Your task to perform on an android device: What's the weather going to be this weekend? Image 0: 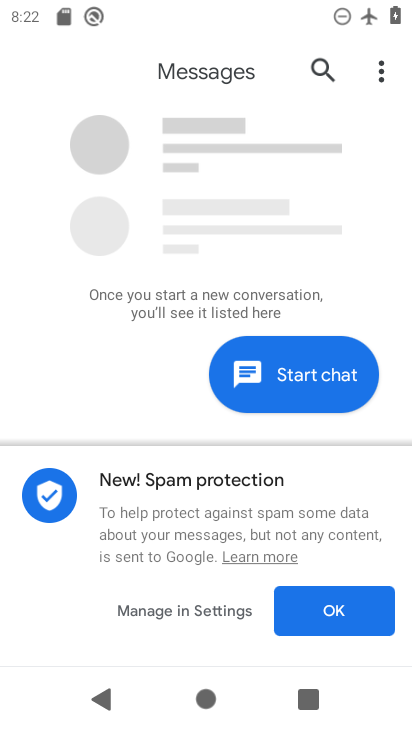
Step 0: press home button
Your task to perform on an android device: What's the weather going to be this weekend? Image 1: 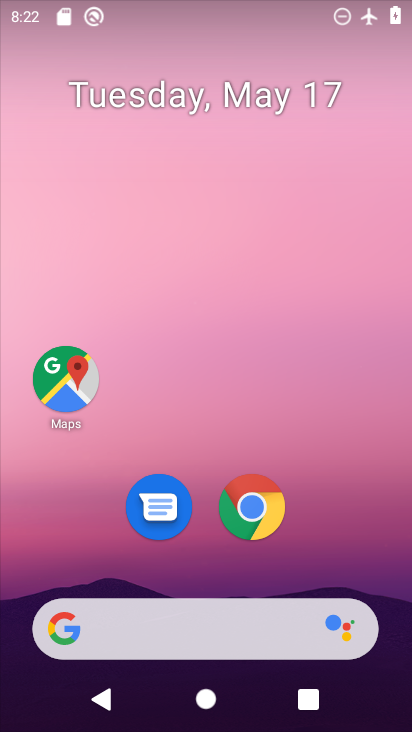
Step 1: click (127, 635)
Your task to perform on an android device: What's the weather going to be this weekend? Image 2: 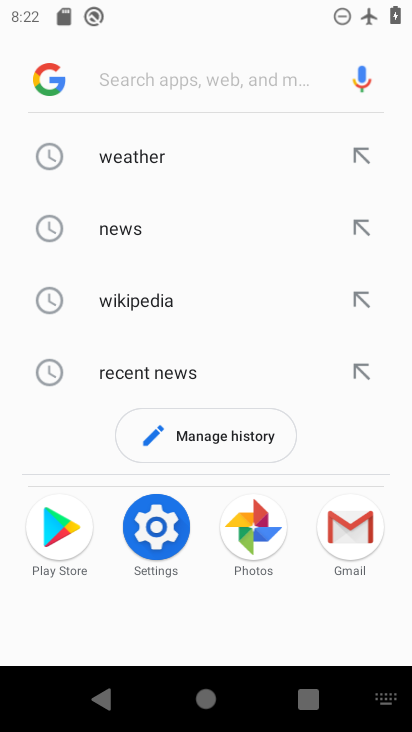
Step 2: click (134, 154)
Your task to perform on an android device: What's the weather going to be this weekend? Image 3: 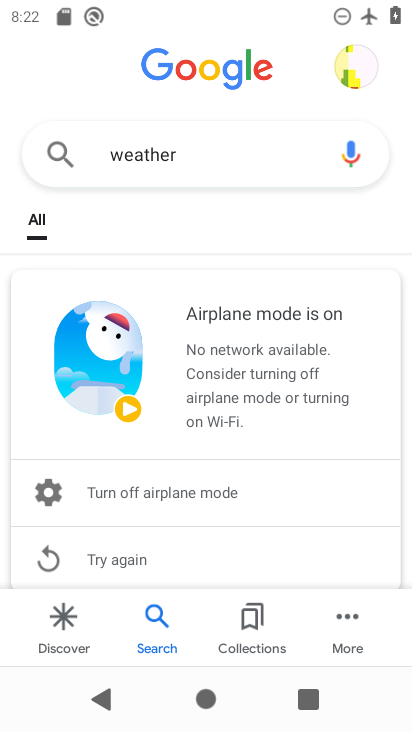
Step 3: task complete